Your task to perform on an android device: check data usage Image 0: 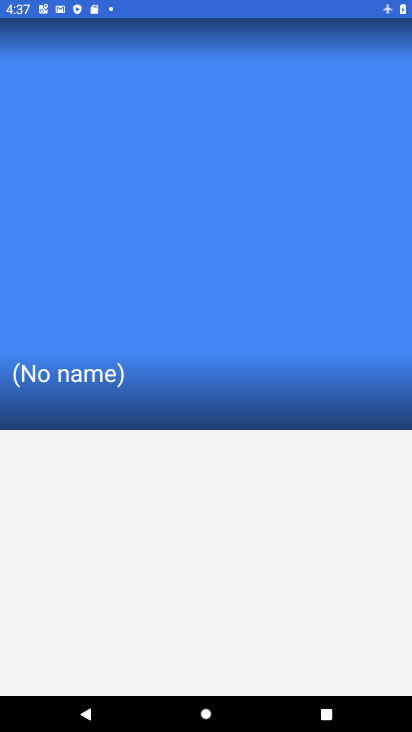
Step 0: drag from (256, 636) to (294, 194)
Your task to perform on an android device: check data usage Image 1: 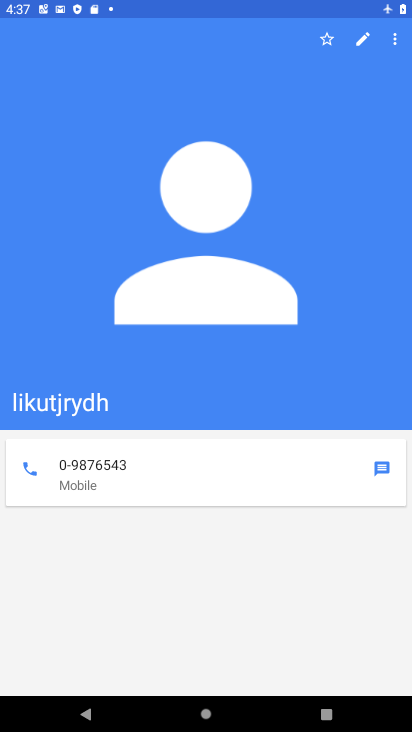
Step 1: press home button
Your task to perform on an android device: check data usage Image 2: 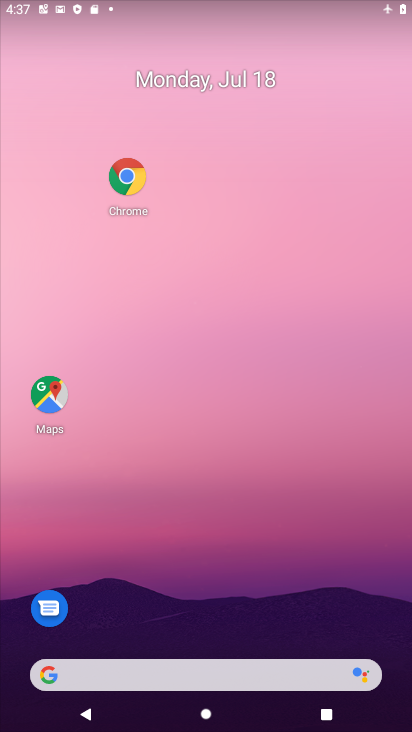
Step 2: drag from (221, 664) to (333, 279)
Your task to perform on an android device: check data usage Image 3: 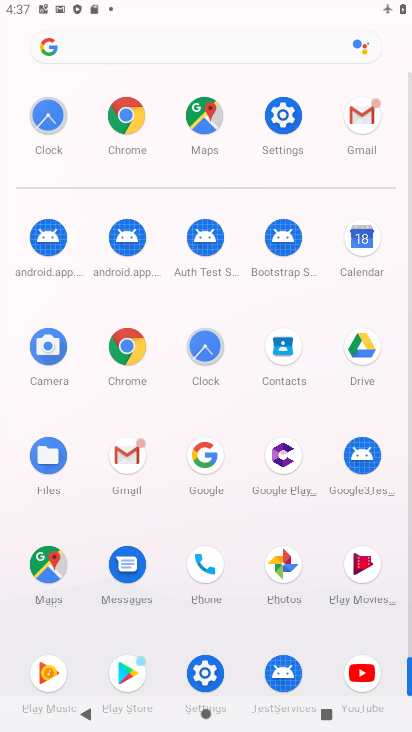
Step 3: click (283, 129)
Your task to perform on an android device: check data usage Image 4: 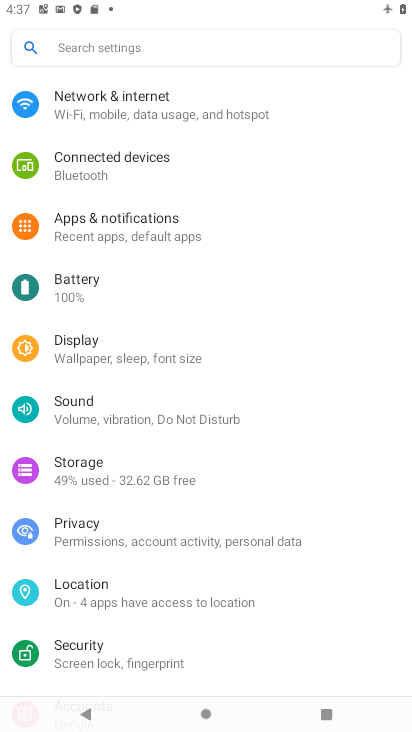
Step 4: click (199, 127)
Your task to perform on an android device: check data usage Image 5: 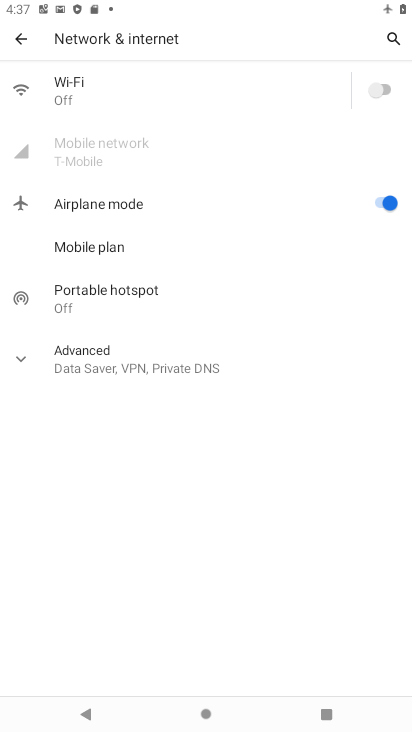
Step 5: click (131, 160)
Your task to perform on an android device: check data usage Image 6: 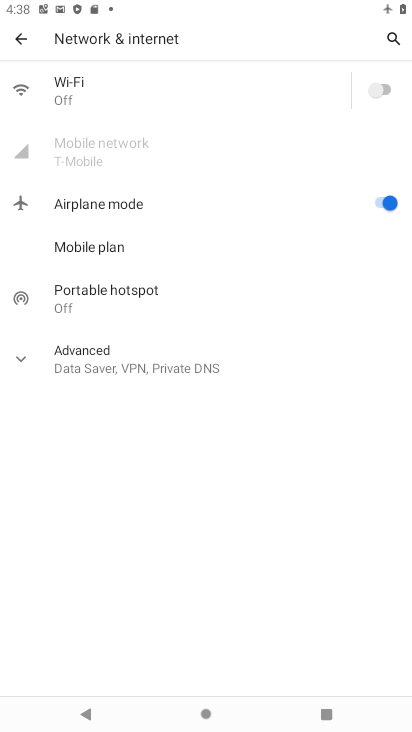
Step 6: task complete